Your task to perform on an android device: turn on javascript in the chrome app Image 0: 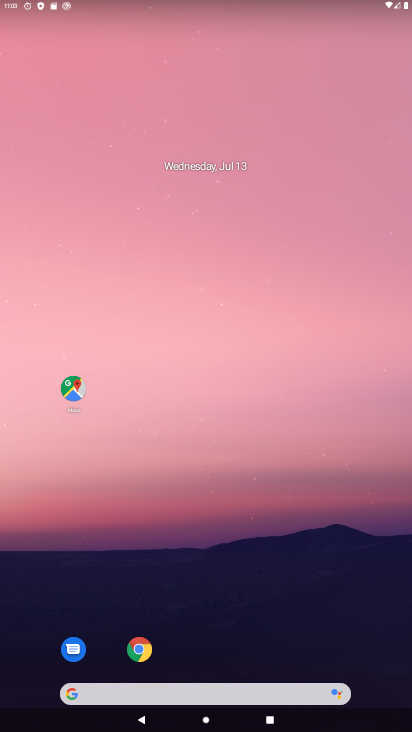
Step 0: click (139, 648)
Your task to perform on an android device: turn on javascript in the chrome app Image 1: 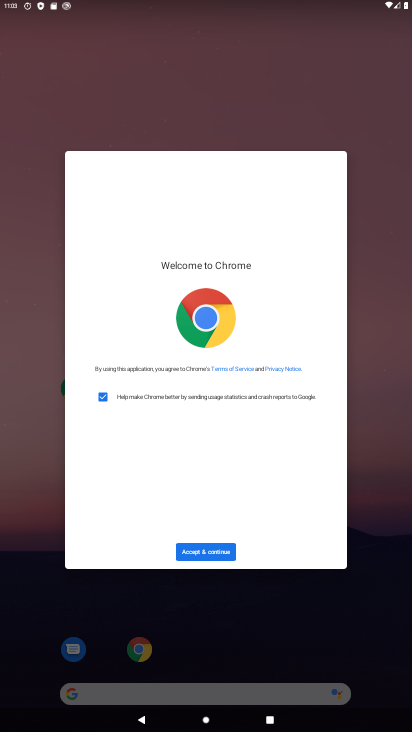
Step 1: click (205, 553)
Your task to perform on an android device: turn on javascript in the chrome app Image 2: 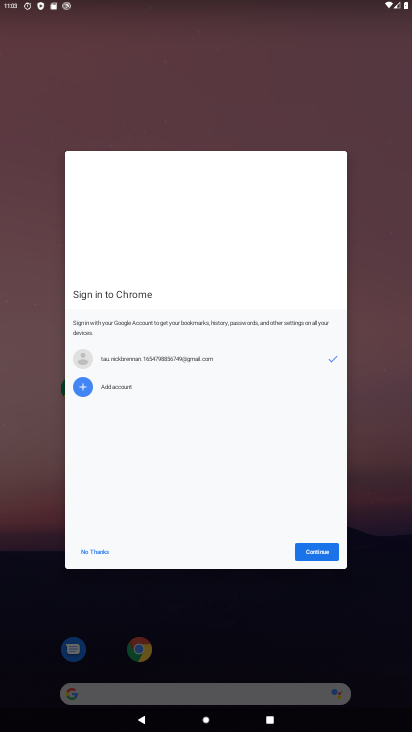
Step 2: click (312, 549)
Your task to perform on an android device: turn on javascript in the chrome app Image 3: 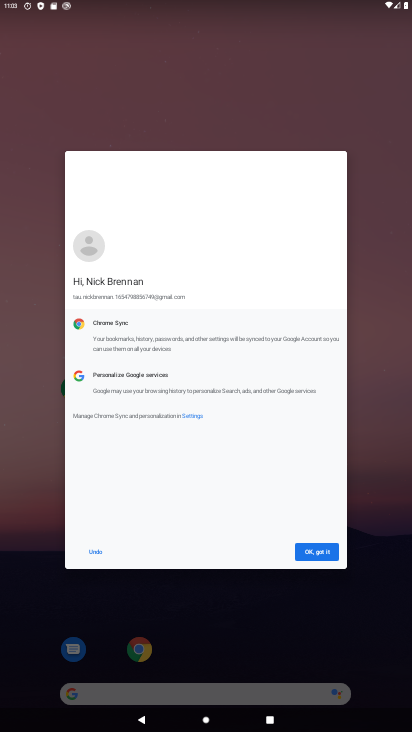
Step 3: click (312, 549)
Your task to perform on an android device: turn on javascript in the chrome app Image 4: 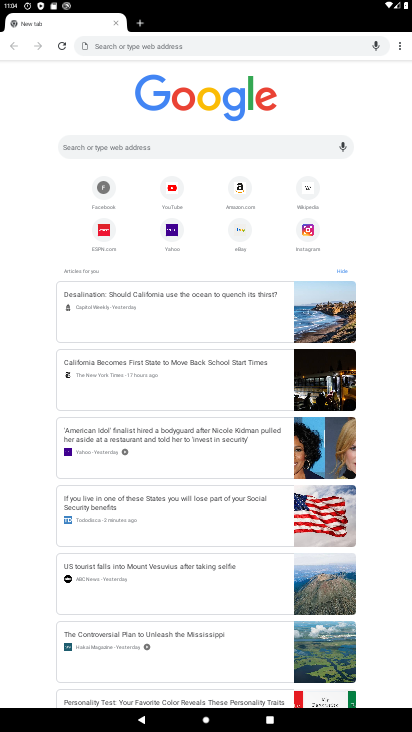
Step 4: click (401, 45)
Your task to perform on an android device: turn on javascript in the chrome app Image 5: 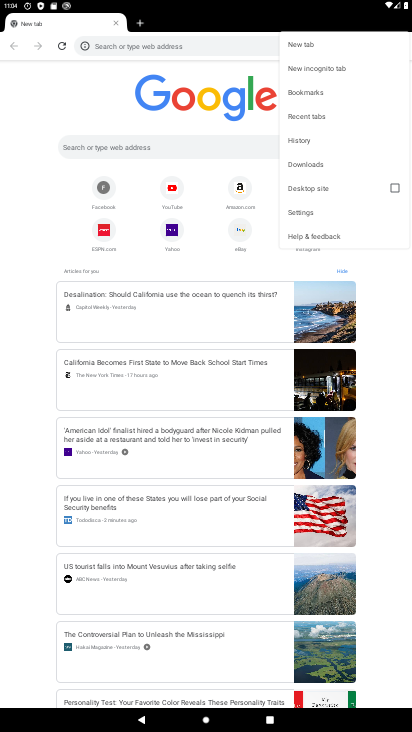
Step 5: click (309, 214)
Your task to perform on an android device: turn on javascript in the chrome app Image 6: 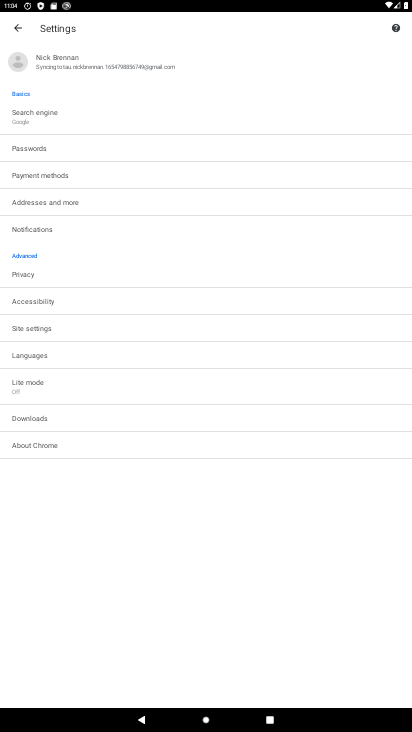
Step 6: click (42, 329)
Your task to perform on an android device: turn on javascript in the chrome app Image 7: 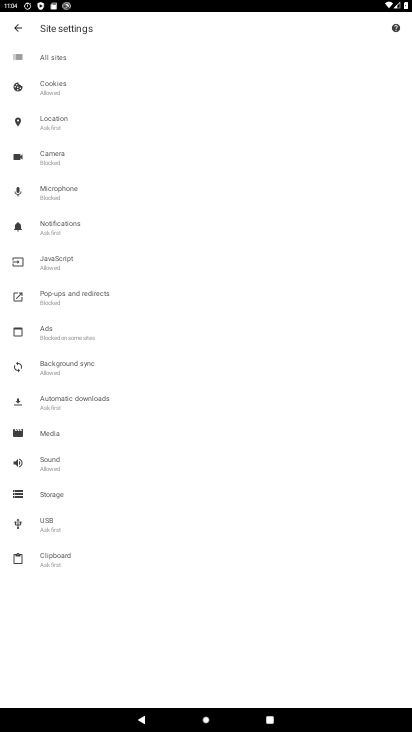
Step 7: click (59, 262)
Your task to perform on an android device: turn on javascript in the chrome app Image 8: 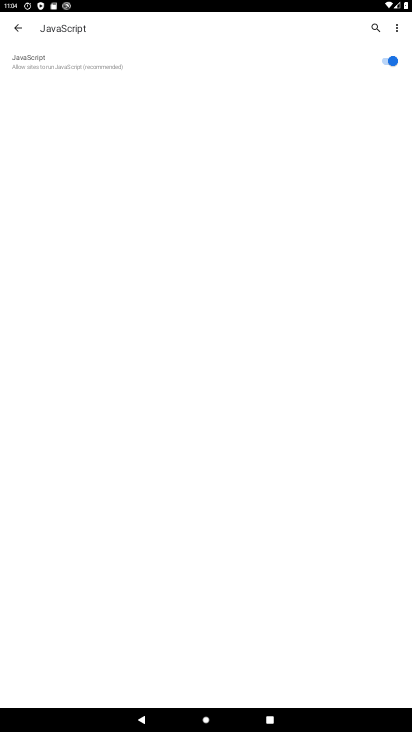
Step 8: task complete